Your task to perform on an android device: Open eBay Image 0: 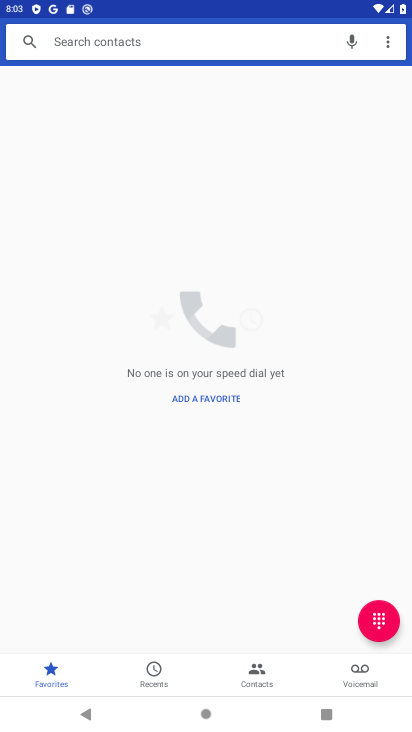
Step 0: press home button
Your task to perform on an android device: Open eBay Image 1: 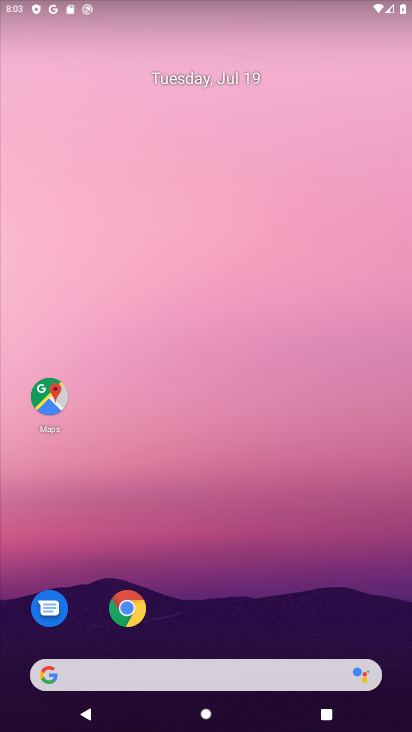
Step 1: click (141, 604)
Your task to perform on an android device: Open eBay Image 2: 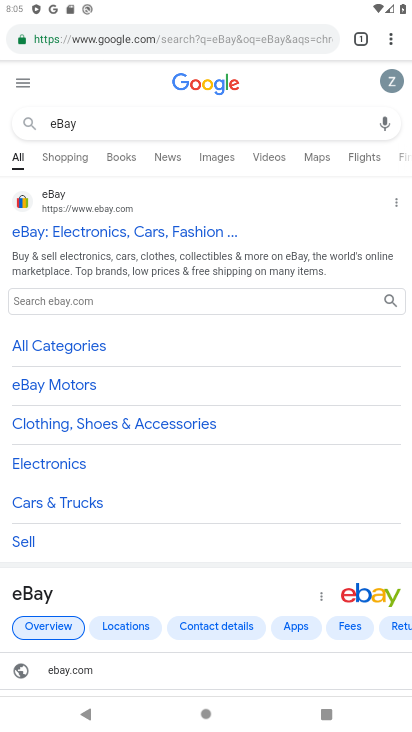
Step 2: task complete